Your task to perform on an android device: uninstall "Spotify" Image 0: 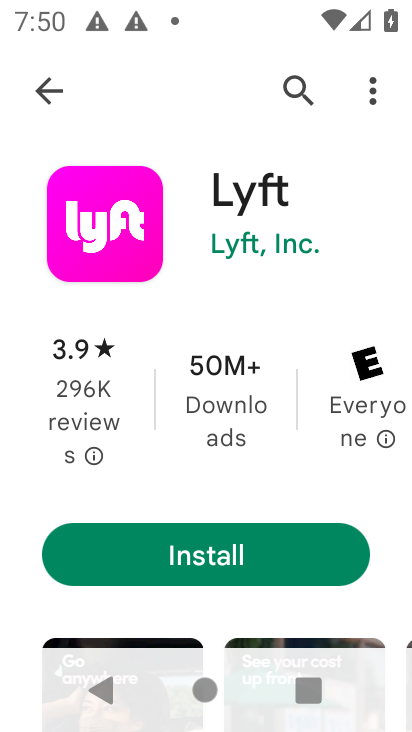
Step 0: press home button
Your task to perform on an android device: uninstall "Spotify" Image 1: 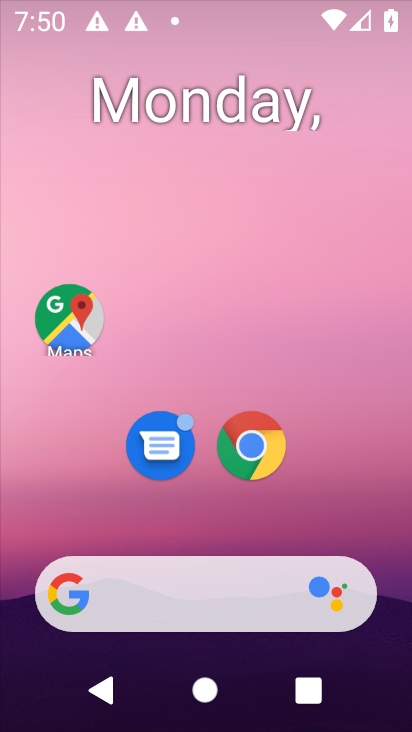
Step 1: drag from (392, 573) to (185, 42)
Your task to perform on an android device: uninstall "Spotify" Image 2: 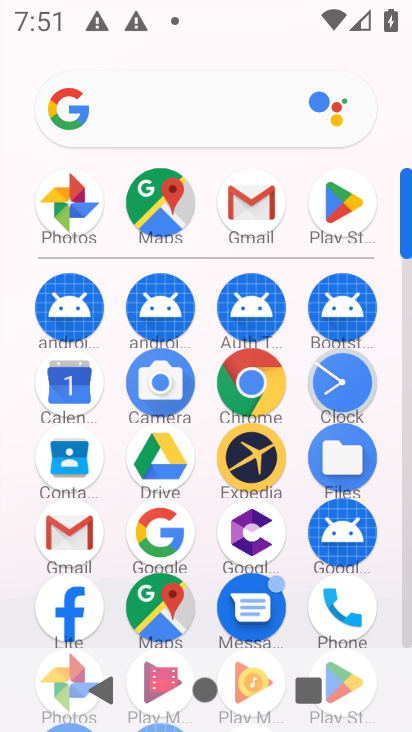
Step 2: click (356, 208)
Your task to perform on an android device: uninstall "Spotify" Image 3: 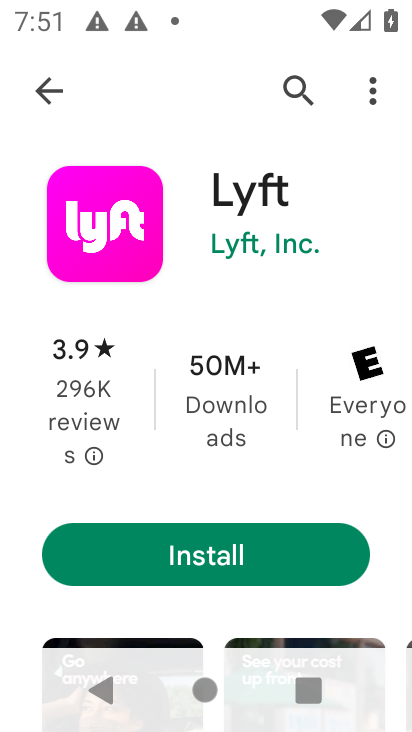
Step 3: press back button
Your task to perform on an android device: uninstall "Spotify" Image 4: 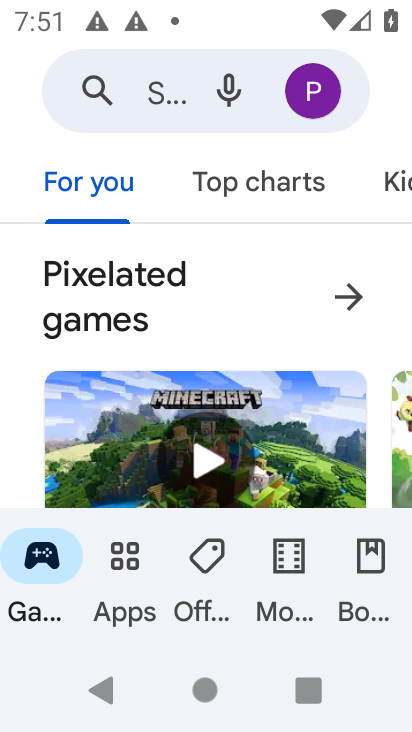
Step 4: click (163, 78)
Your task to perform on an android device: uninstall "Spotify" Image 5: 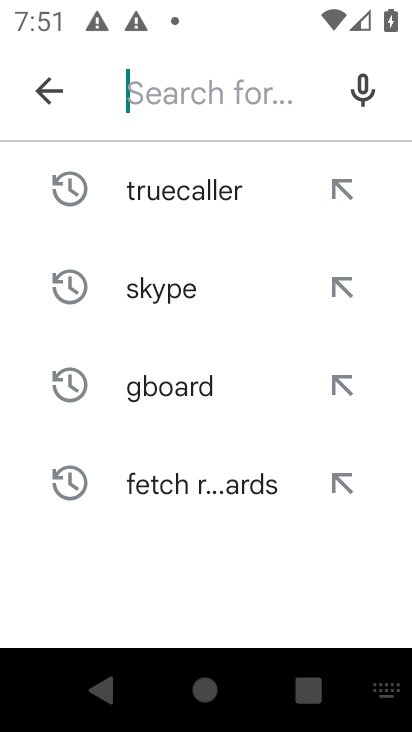
Step 5: type "Spotify"
Your task to perform on an android device: uninstall "Spotify" Image 6: 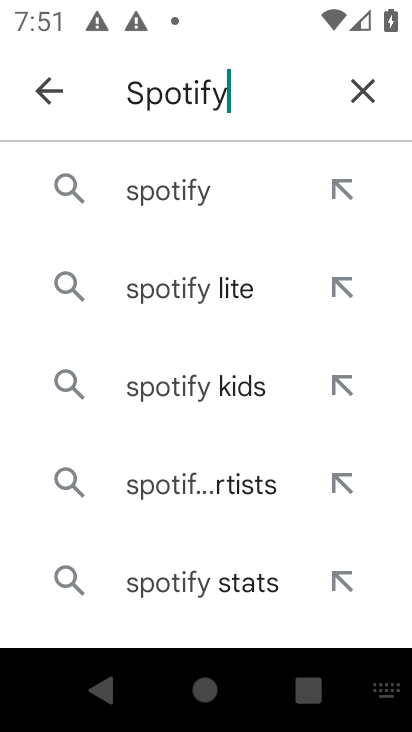
Step 6: click (202, 190)
Your task to perform on an android device: uninstall "Spotify" Image 7: 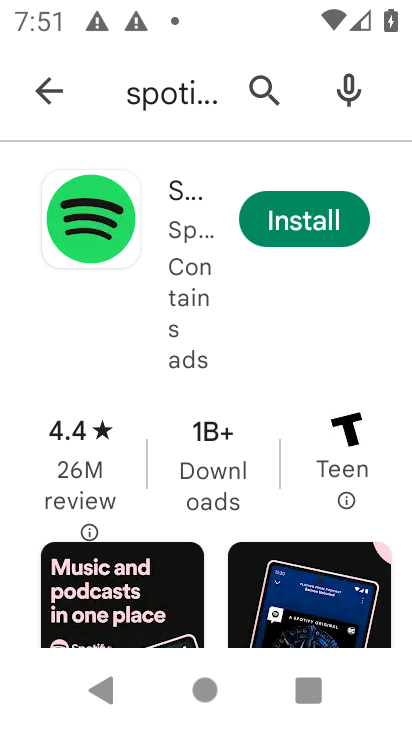
Step 7: task complete